Your task to perform on an android device: toggle airplane mode Image 0: 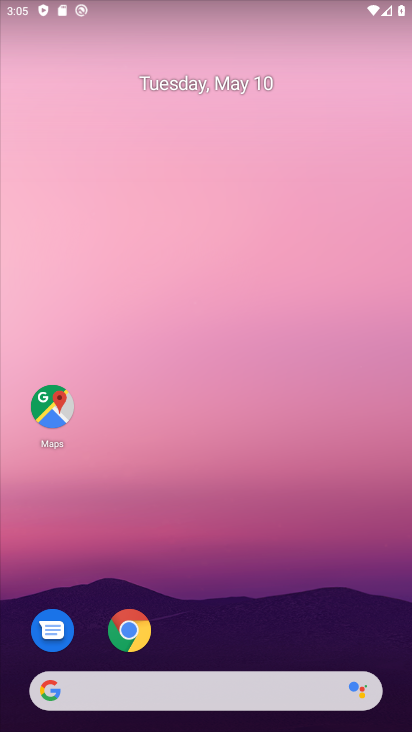
Step 0: drag from (249, 1) to (286, 567)
Your task to perform on an android device: toggle airplane mode Image 1: 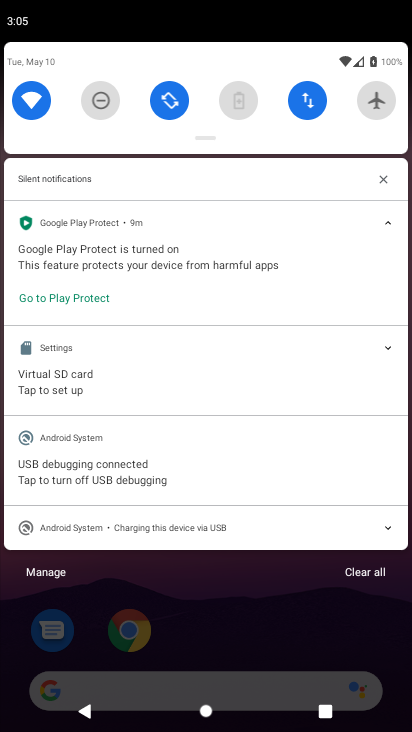
Step 1: click (375, 105)
Your task to perform on an android device: toggle airplane mode Image 2: 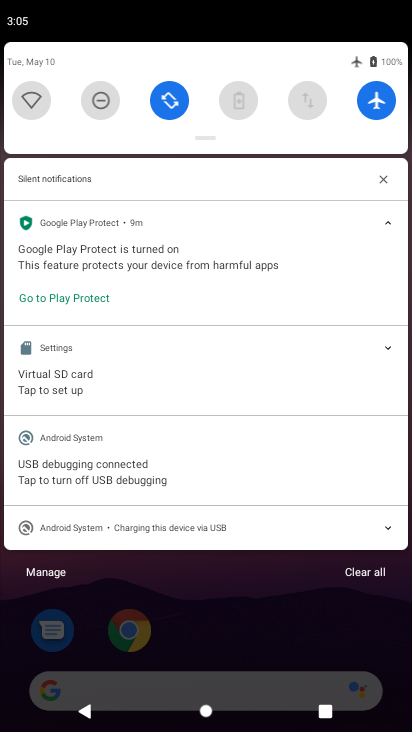
Step 2: click (375, 105)
Your task to perform on an android device: toggle airplane mode Image 3: 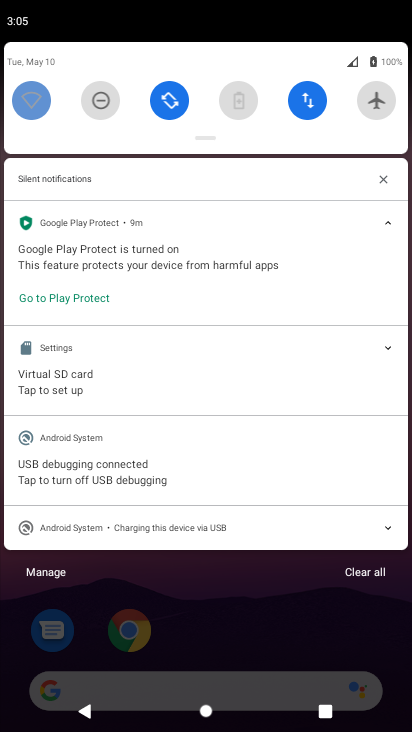
Step 3: click (375, 105)
Your task to perform on an android device: toggle airplane mode Image 4: 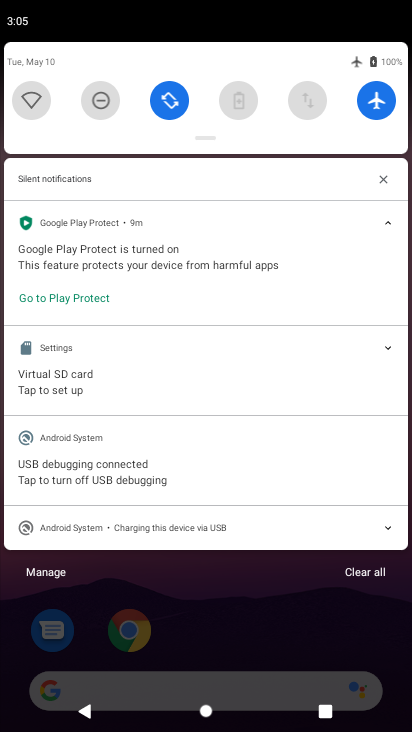
Step 4: click (375, 105)
Your task to perform on an android device: toggle airplane mode Image 5: 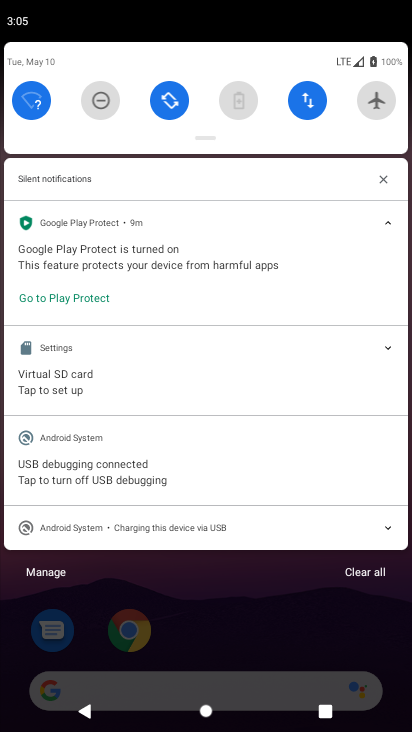
Step 5: task complete